Your task to perform on an android device: refresh tabs in the chrome app Image 0: 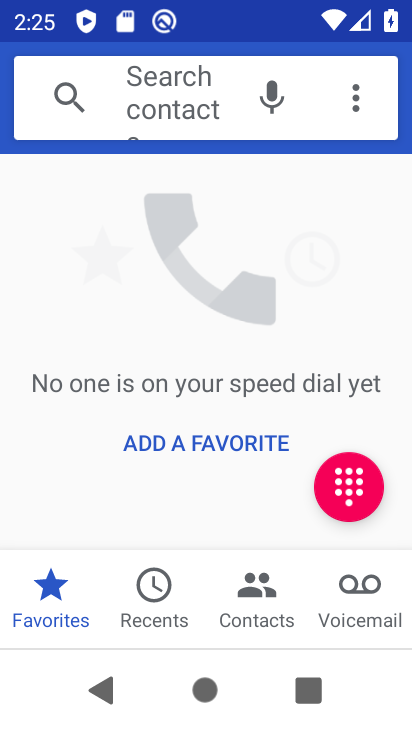
Step 0: press home button
Your task to perform on an android device: refresh tabs in the chrome app Image 1: 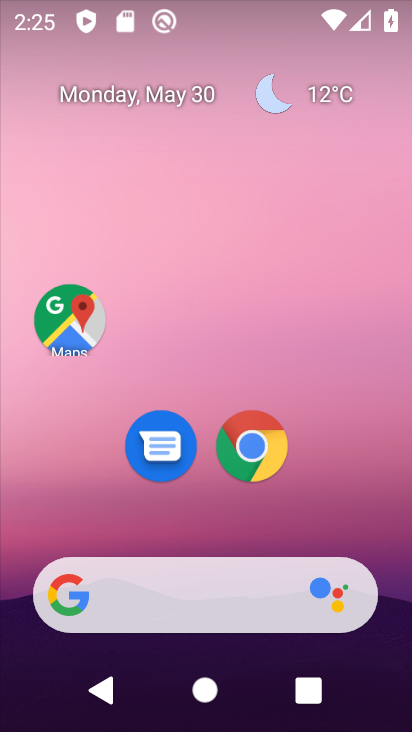
Step 1: click (252, 449)
Your task to perform on an android device: refresh tabs in the chrome app Image 2: 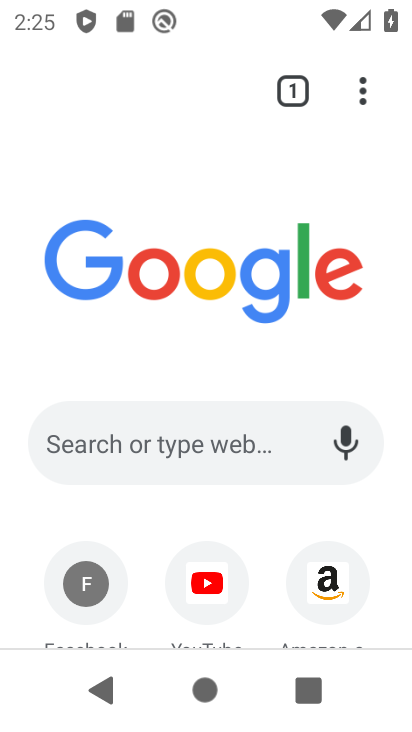
Step 2: click (362, 90)
Your task to perform on an android device: refresh tabs in the chrome app Image 3: 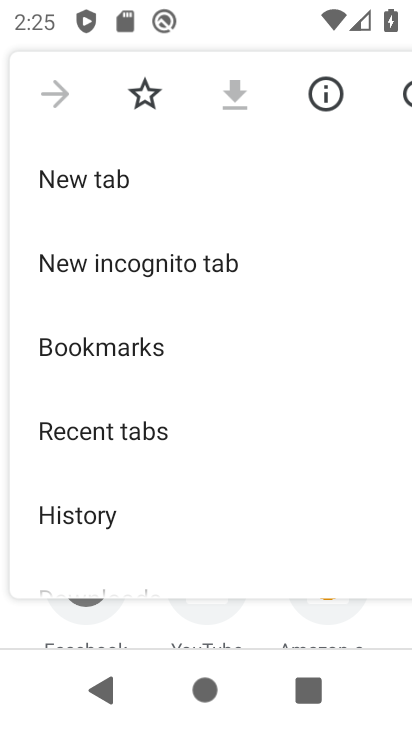
Step 3: click (411, 99)
Your task to perform on an android device: refresh tabs in the chrome app Image 4: 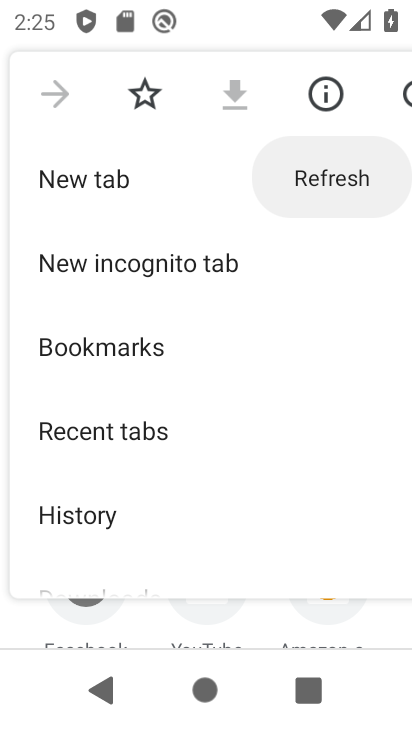
Step 4: click (411, 99)
Your task to perform on an android device: refresh tabs in the chrome app Image 5: 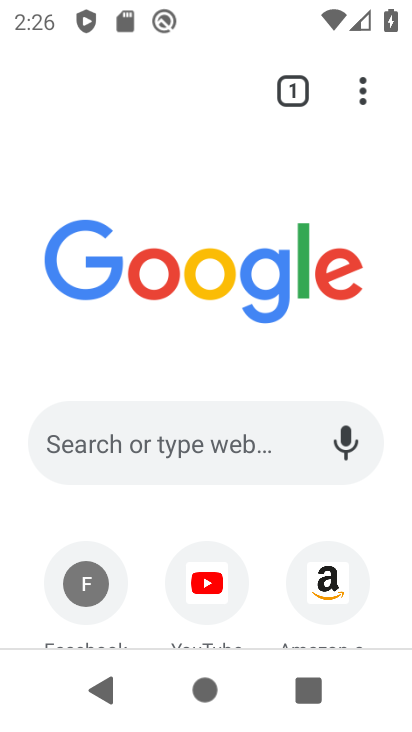
Step 5: task complete